Your task to perform on an android device: choose inbox layout in the gmail app Image 0: 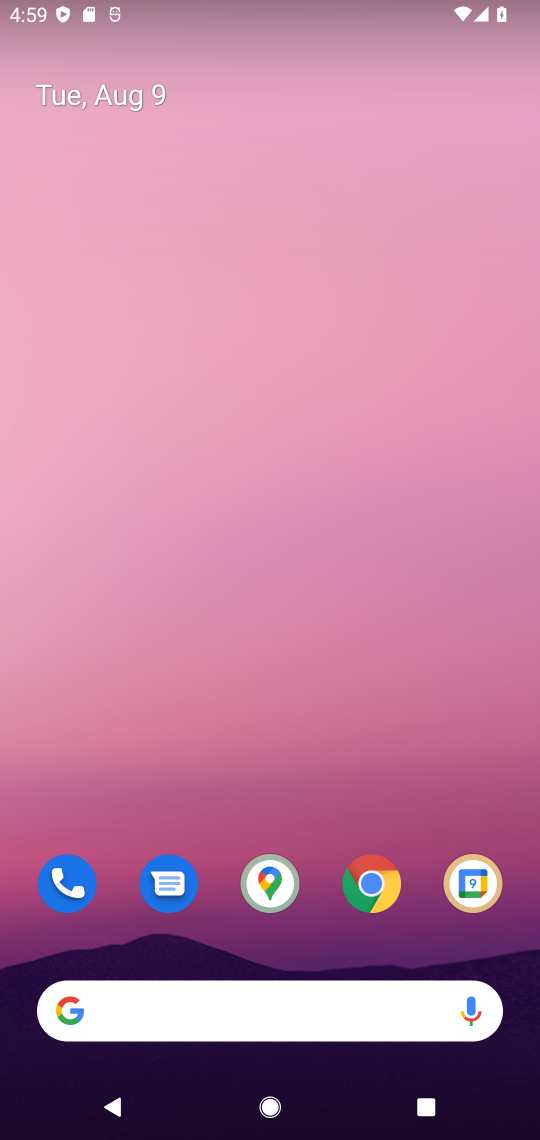
Step 0: drag from (277, 763) to (253, 252)
Your task to perform on an android device: choose inbox layout in the gmail app Image 1: 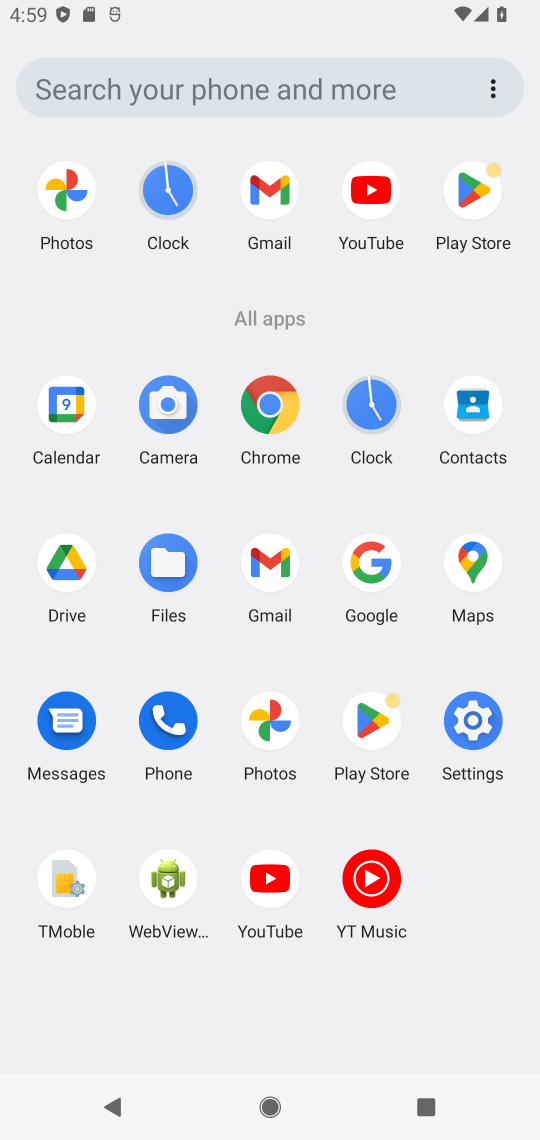
Step 1: click (263, 220)
Your task to perform on an android device: choose inbox layout in the gmail app Image 2: 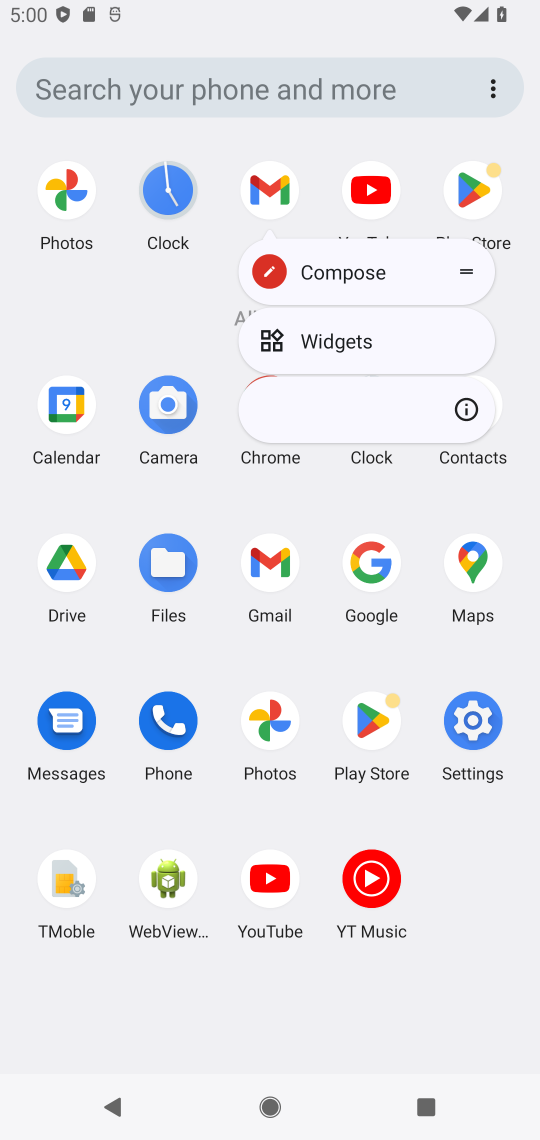
Step 2: click (263, 193)
Your task to perform on an android device: choose inbox layout in the gmail app Image 3: 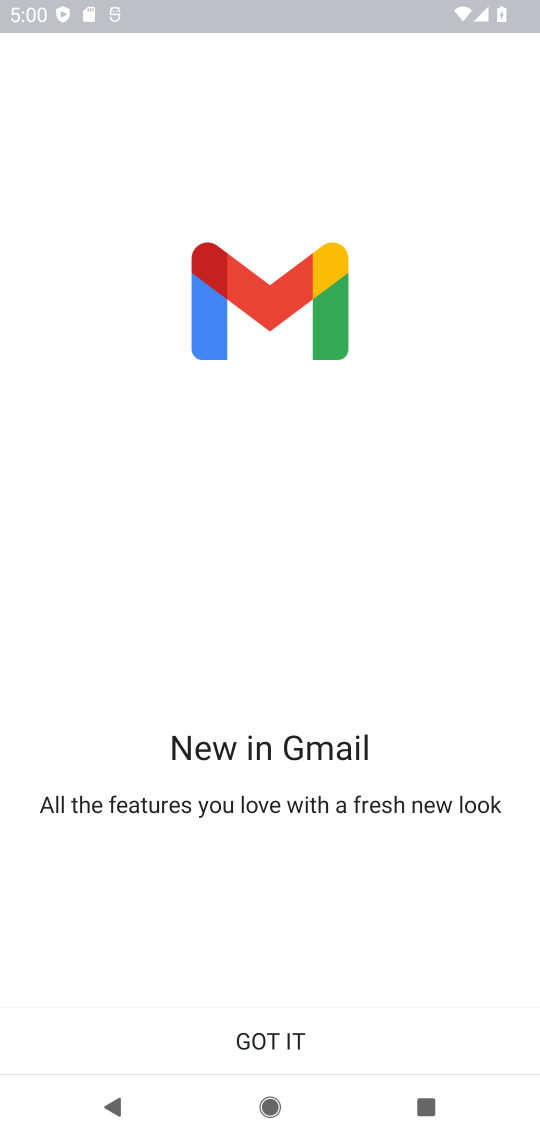
Step 3: click (277, 1028)
Your task to perform on an android device: choose inbox layout in the gmail app Image 4: 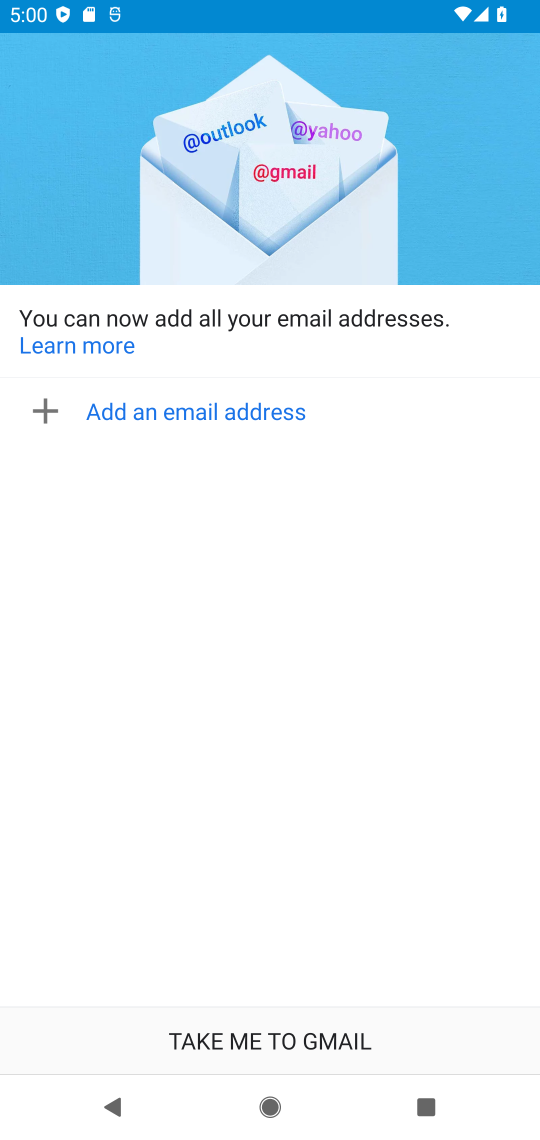
Step 4: click (281, 1026)
Your task to perform on an android device: choose inbox layout in the gmail app Image 5: 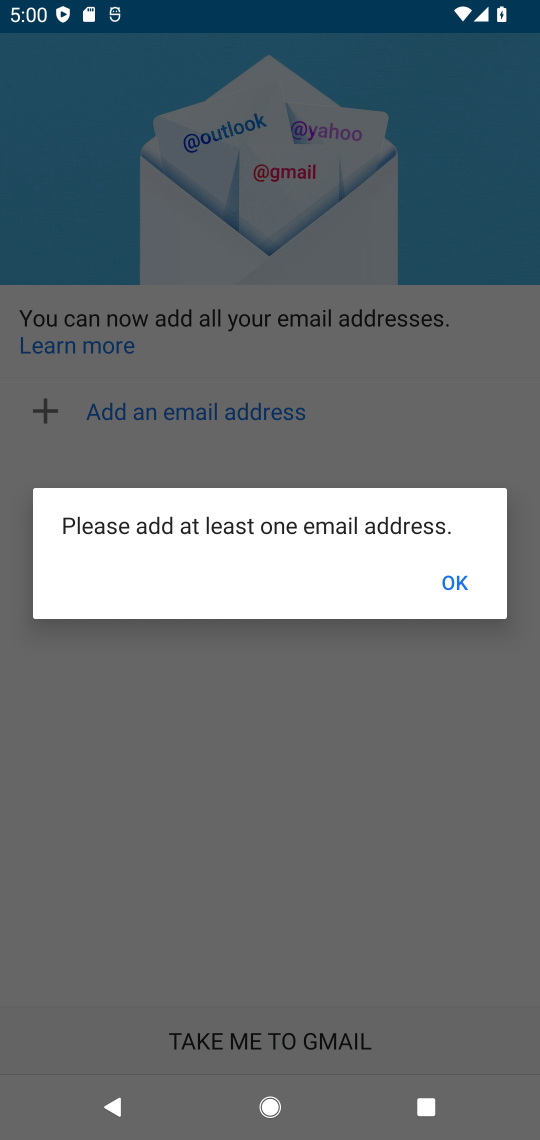
Step 5: click (444, 582)
Your task to perform on an android device: choose inbox layout in the gmail app Image 6: 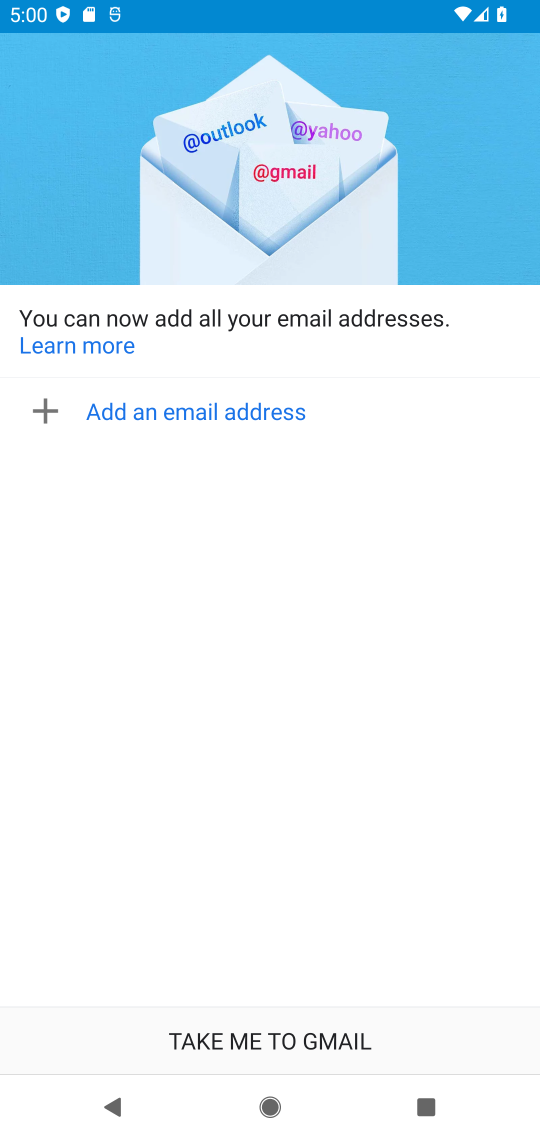
Step 6: click (321, 1049)
Your task to perform on an android device: choose inbox layout in the gmail app Image 7: 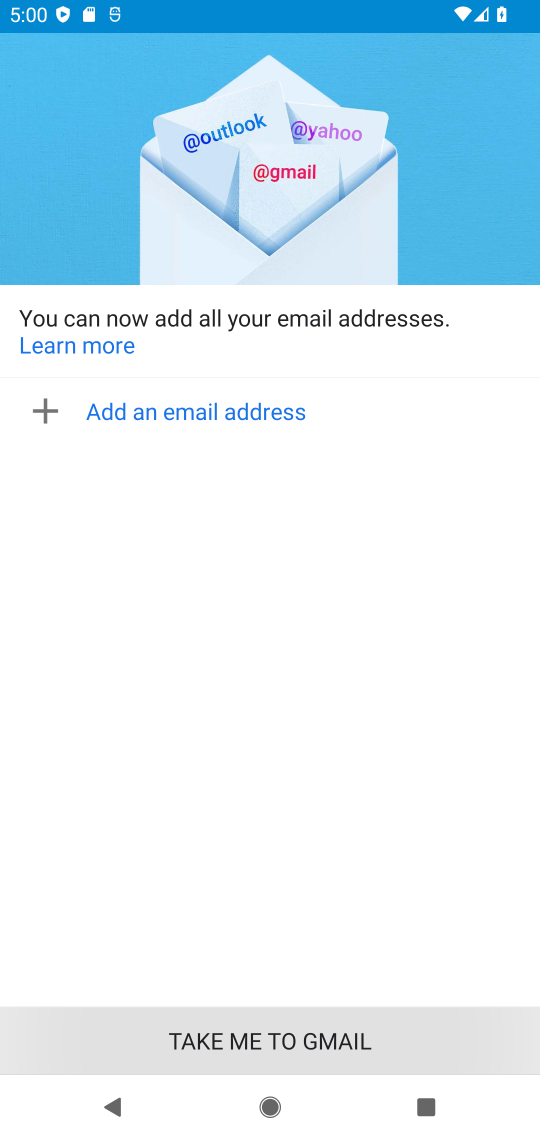
Step 7: task complete